Your task to perform on an android device: change notification settings in the gmail app Image 0: 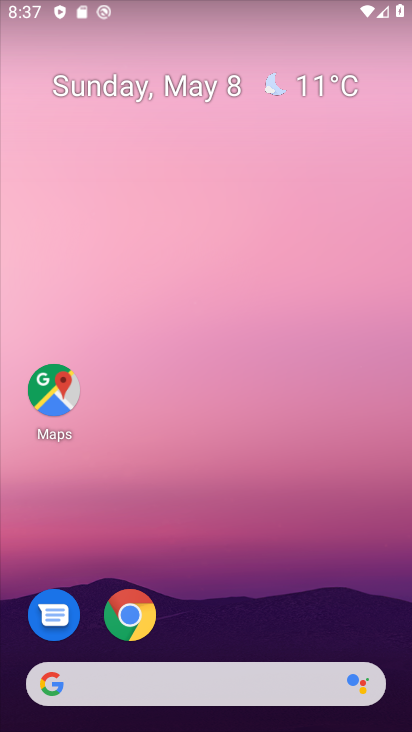
Step 0: drag from (323, 632) to (324, 31)
Your task to perform on an android device: change notification settings in the gmail app Image 1: 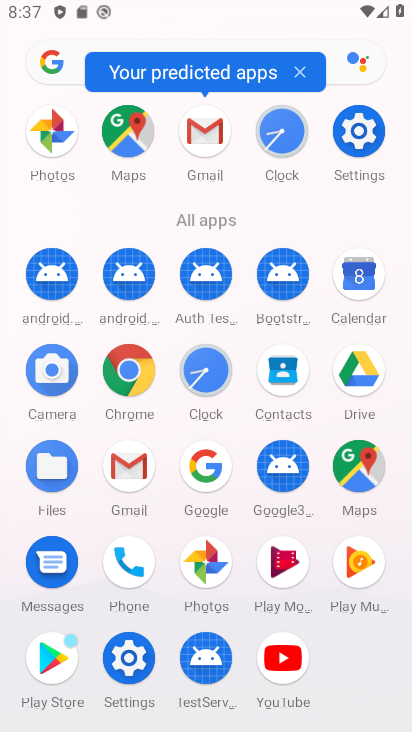
Step 1: click (209, 141)
Your task to perform on an android device: change notification settings in the gmail app Image 2: 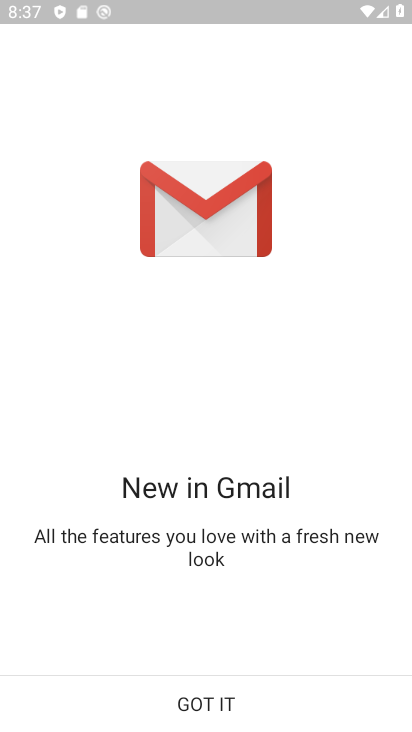
Step 2: click (231, 711)
Your task to perform on an android device: change notification settings in the gmail app Image 3: 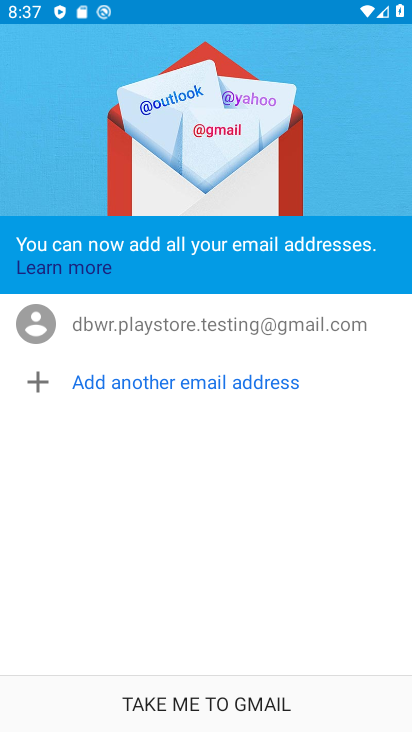
Step 3: click (234, 704)
Your task to perform on an android device: change notification settings in the gmail app Image 4: 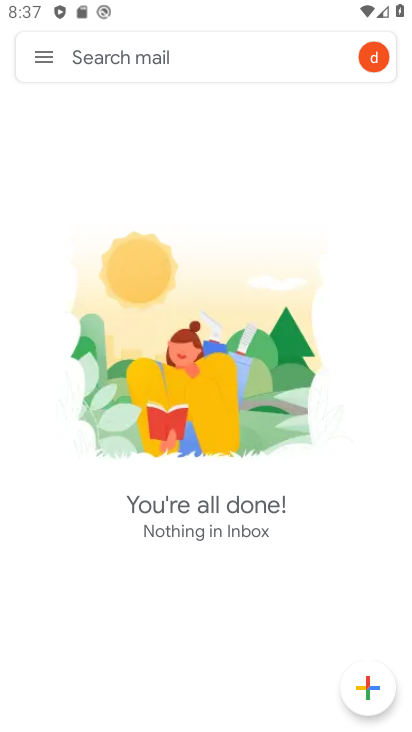
Step 4: click (46, 49)
Your task to perform on an android device: change notification settings in the gmail app Image 5: 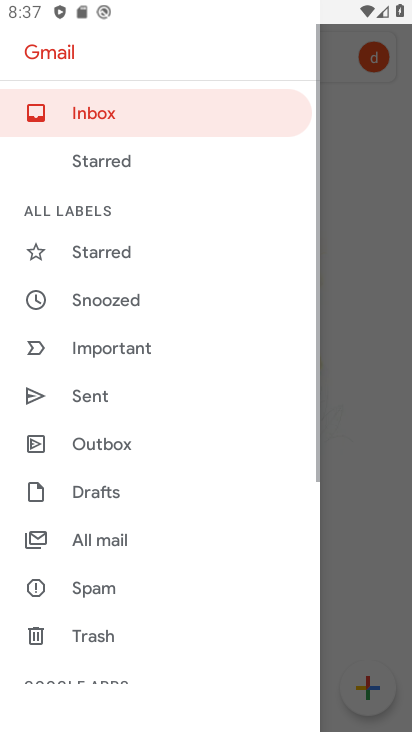
Step 5: drag from (110, 540) to (174, 80)
Your task to perform on an android device: change notification settings in the gmail app Image 6: 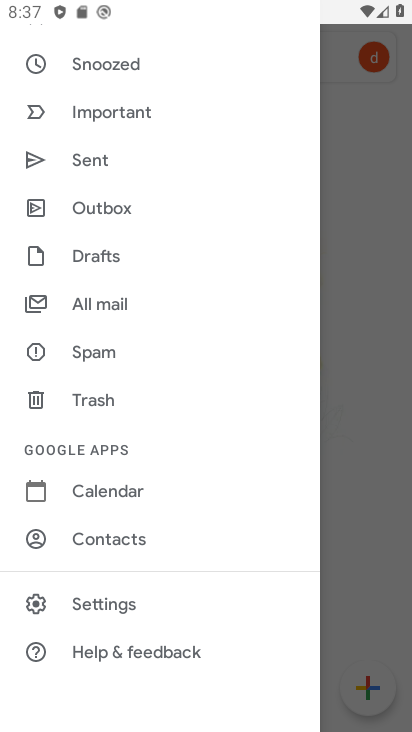
Step 6: click (132, 607)
Your task to perform on an android device: change notification settings in the gmail app Image 7: 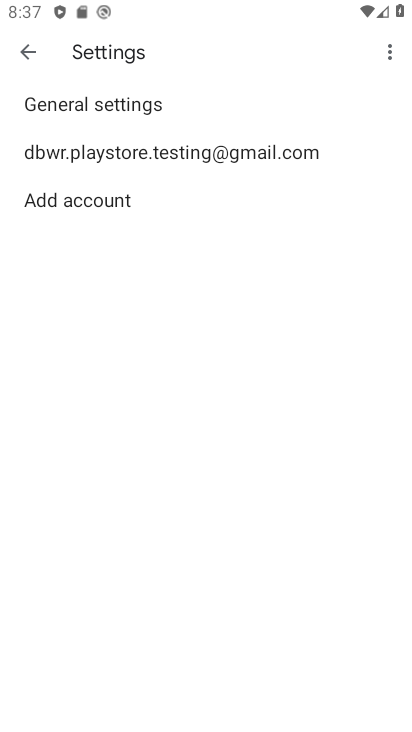
Step 7: click (192, 157)
Your task to perform on an android device: change notification settings in the gmail app Image 8: 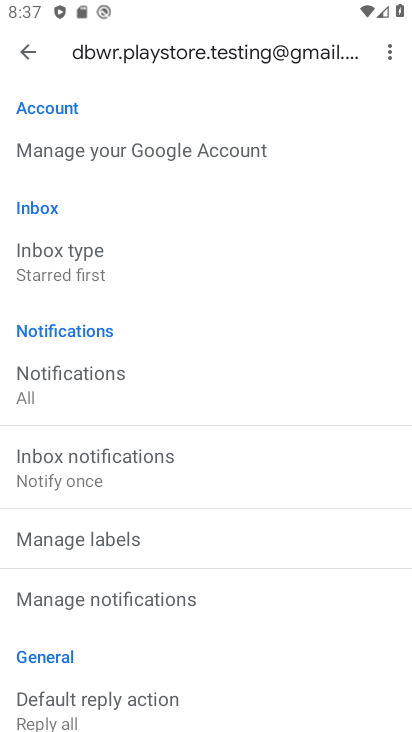
Step 8: click (171, 593)
Your task to perform on an android device: change notification settings in the gmail app Image 9: 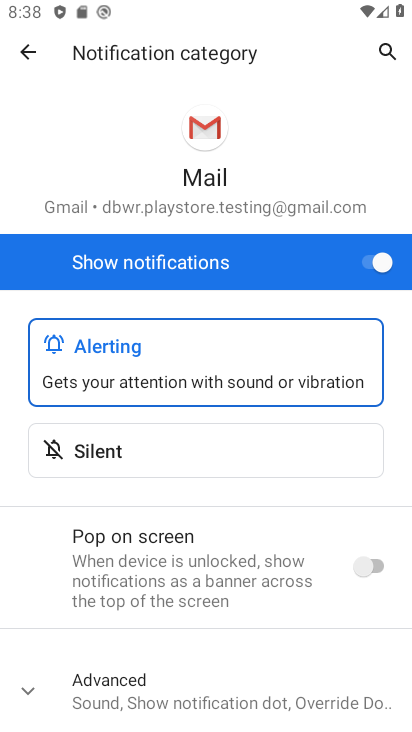
Step 9: click (384, 258)
Your task to perform on an android device: change notification settings in the gmail app Image 10: 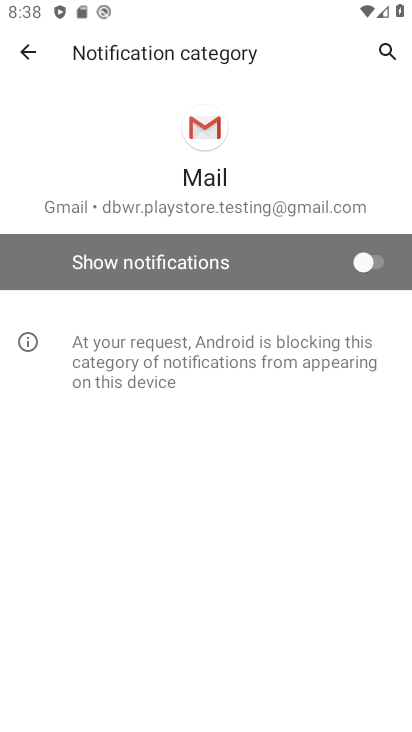
Step 10: task complete